Your task to perform on an android device: Open wifi settings Image 0: 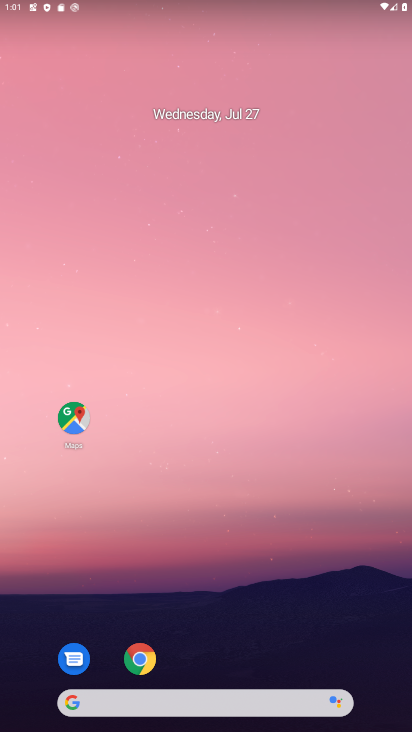
Step 0: press home button
Your task to perform on an android device: Open wifi settings Image 1: 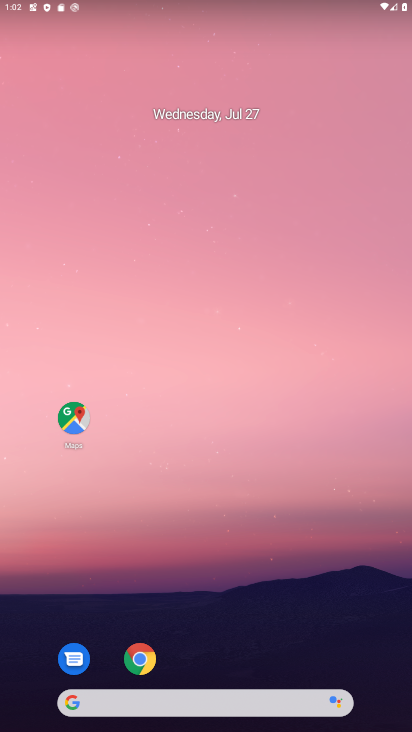
Step 1: drag from (219, 674) to (251, 36)
Your task to perform on an android device: Open wifi settings Image 2: 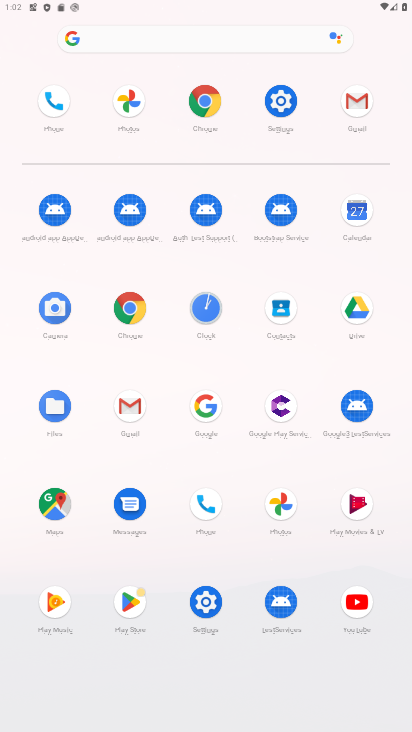
Step 2: click (277, 95)
Your task to perform on an android device: Open wifi settings Image 3: 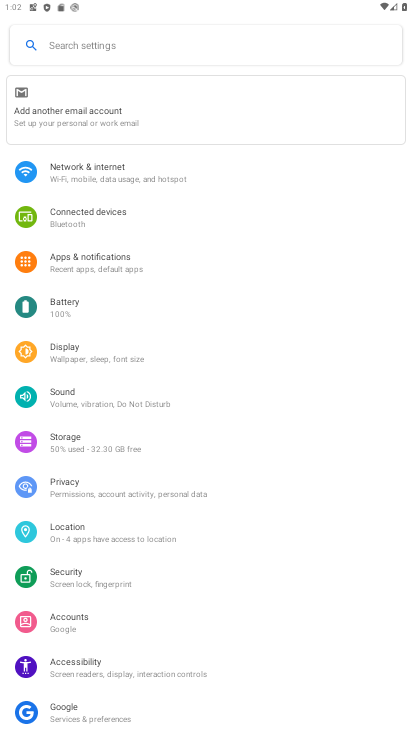
Step 3: click (140, 164)
Your task to perform on an android device: Open wifi settings Image 4: 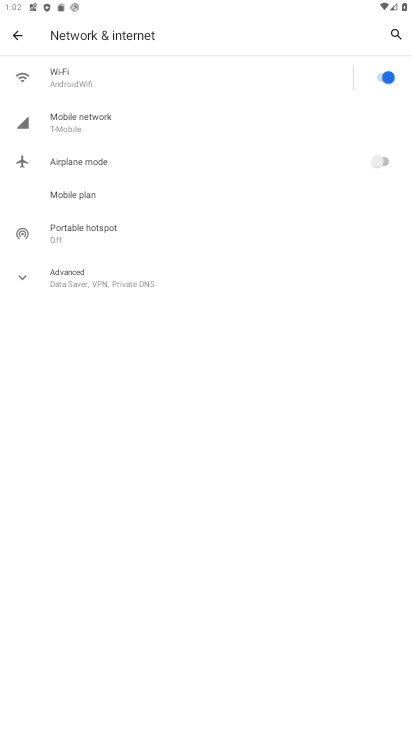
Step 4: click (134, 74)
Your task to perform on an android device: Open wifi settings Image 5: 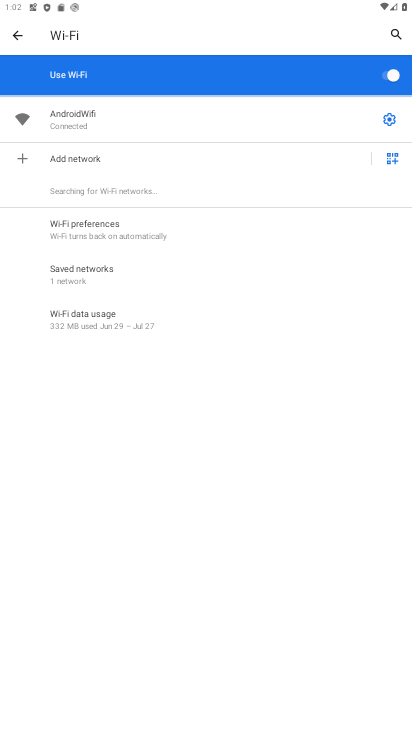
Step 5: task complete